Your task to perform on an android device: turn on the 12-hour format for clock Image 0: 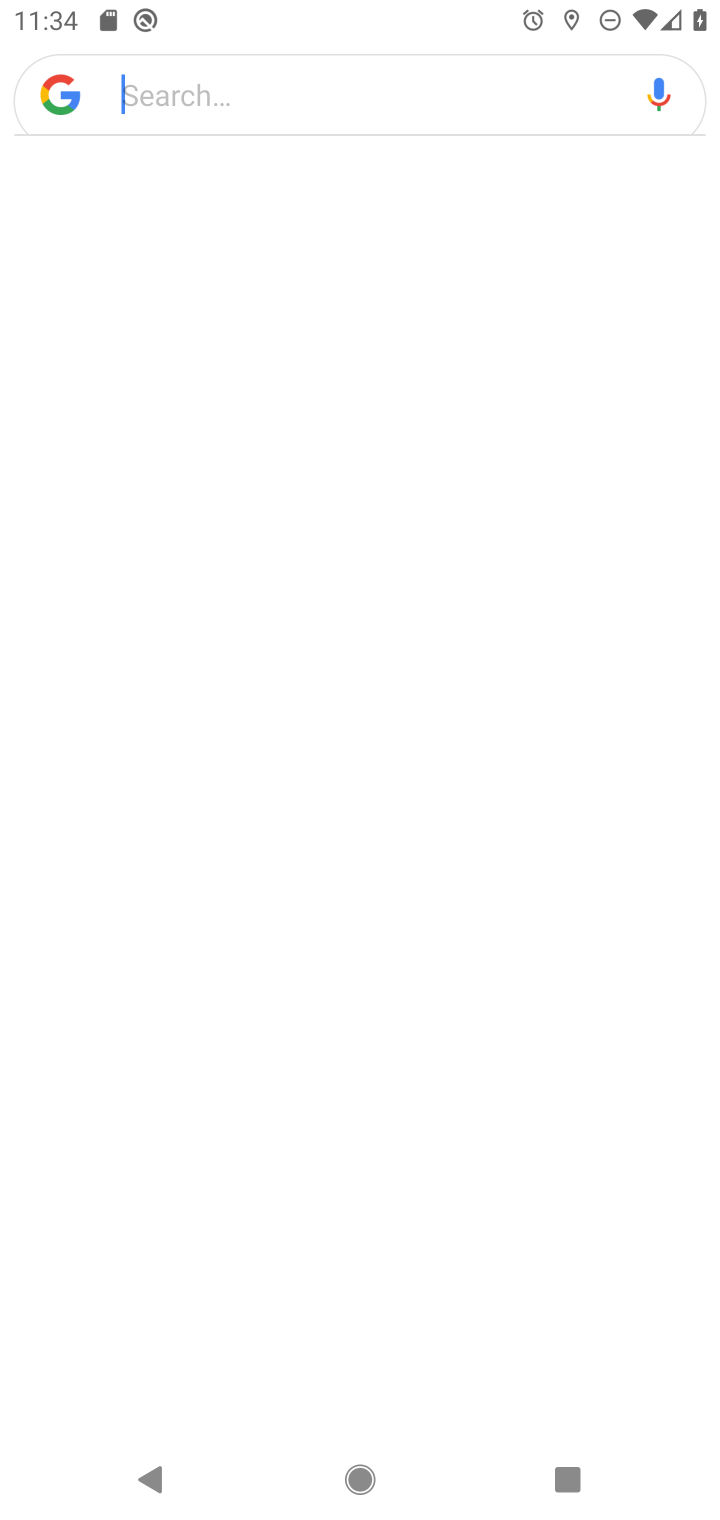
Step 0: press home button
Your task to perform on an android device: turn on the 12-hour format for clock Image 1: 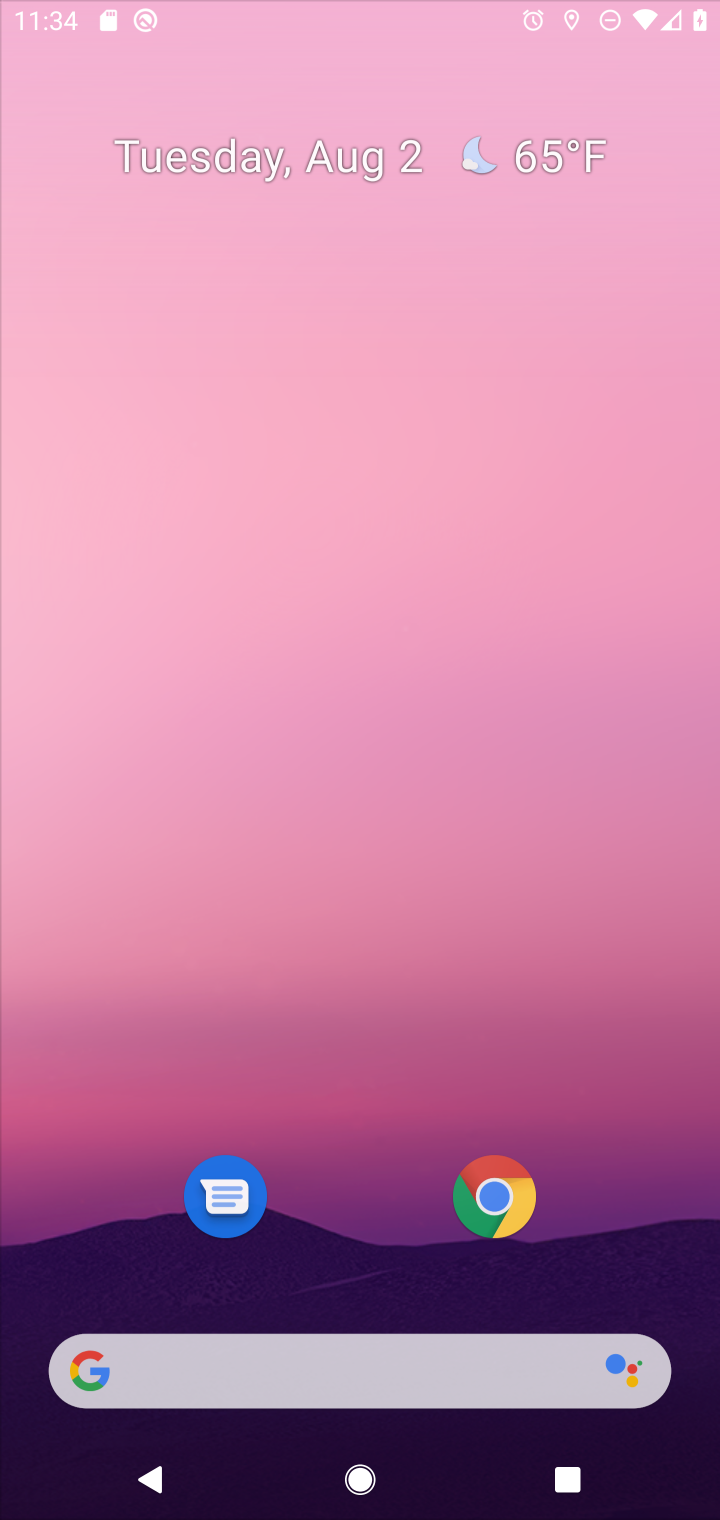
Step 1: press home button
Your task to perform on an android device: turn on the 12-hour format for clock Image 2: 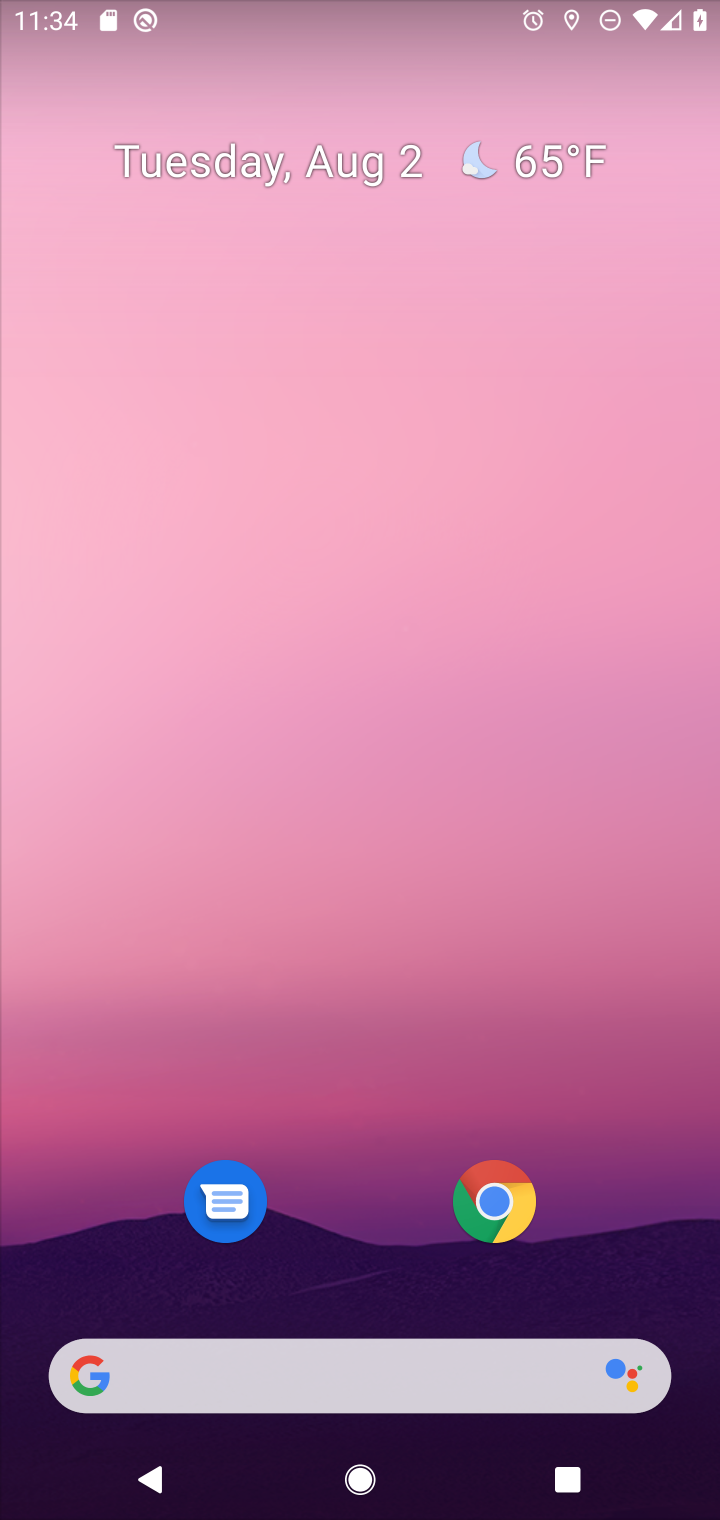
Step 2: drag from (415, 1278) to (707, 1482)
Your task to perform on an android device: turn on the 12-hour format for clock Image 3: 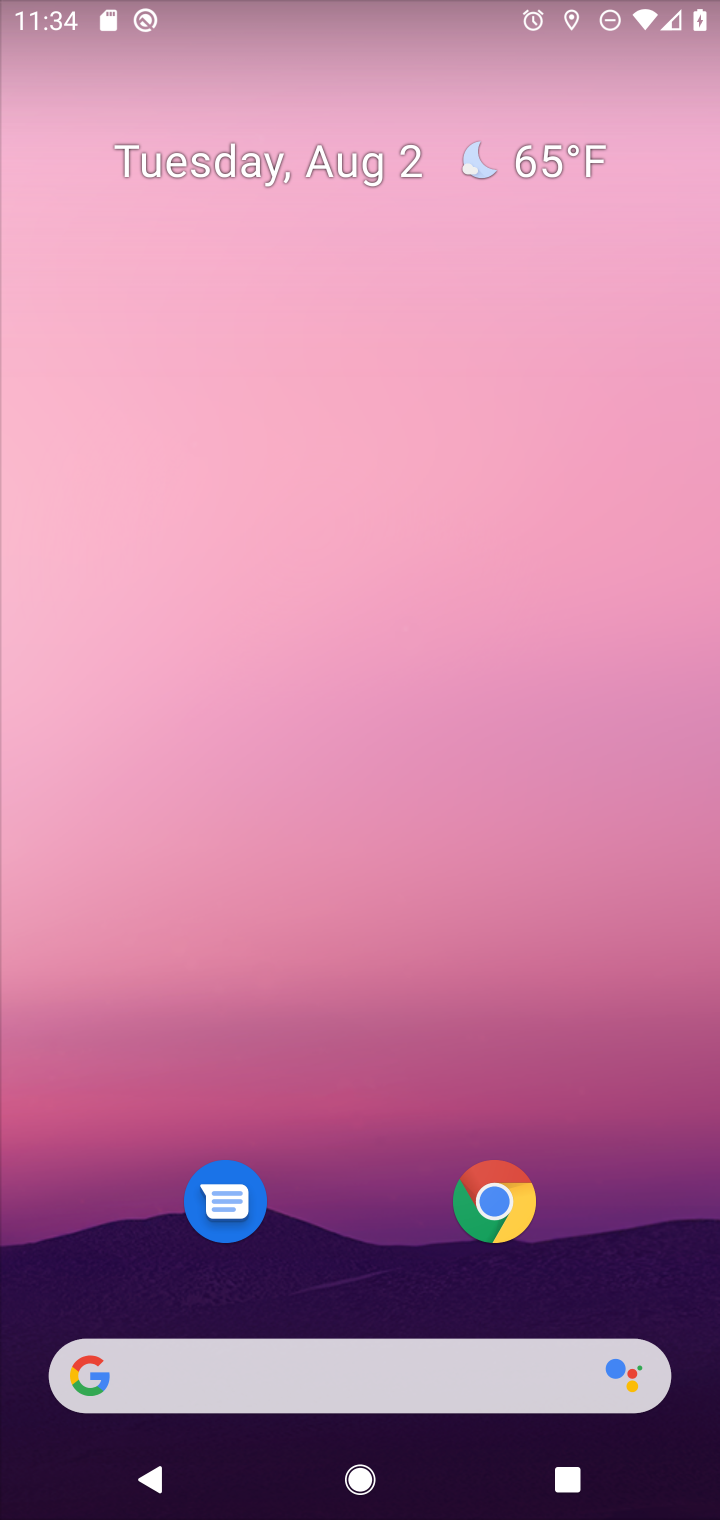
Step 3: drag from (370, 1347) to (369, 298)
Your task to perform on an android device: turn on the 12-hour format for clock Image 4: 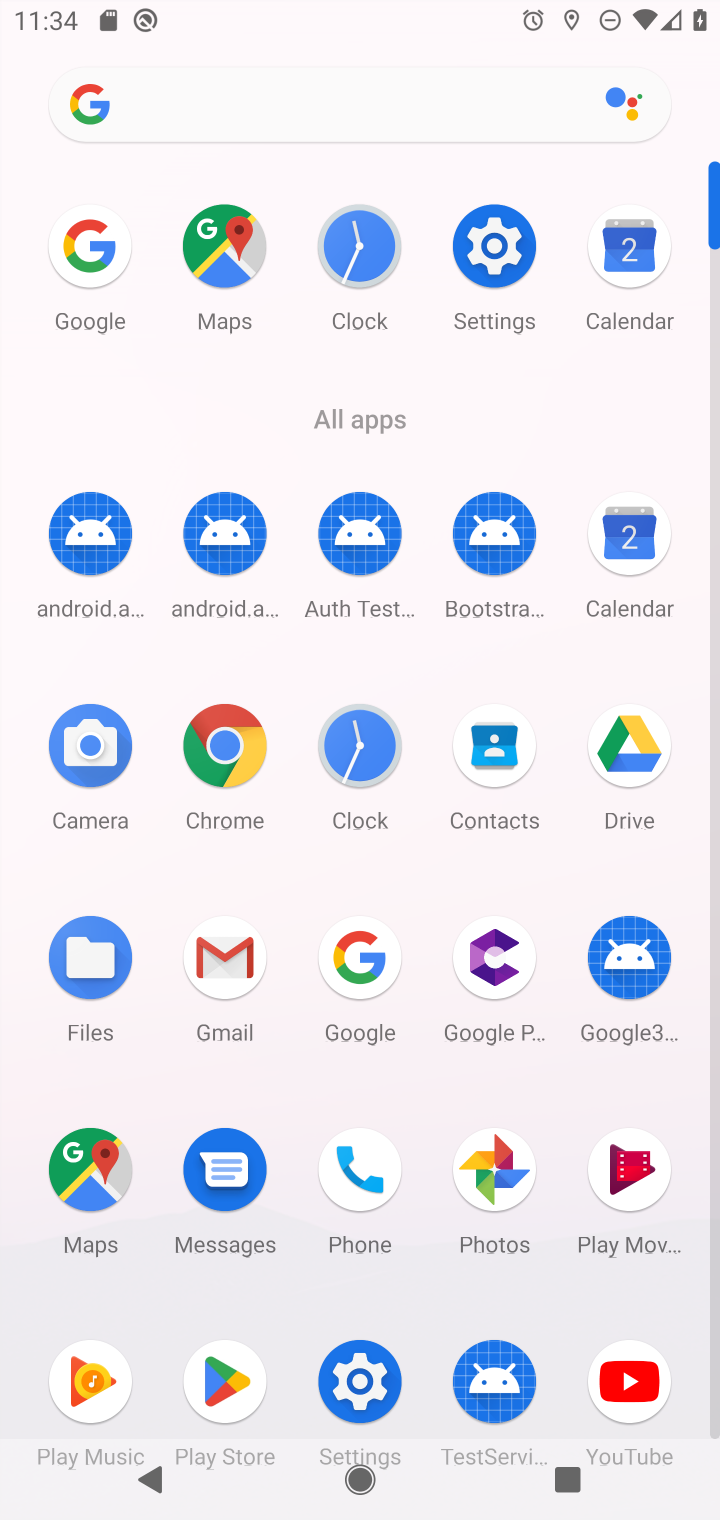
Step 4: click (370, 244)
Your task to perform on an android device: turn on the 12-hour format for clock Image 5: 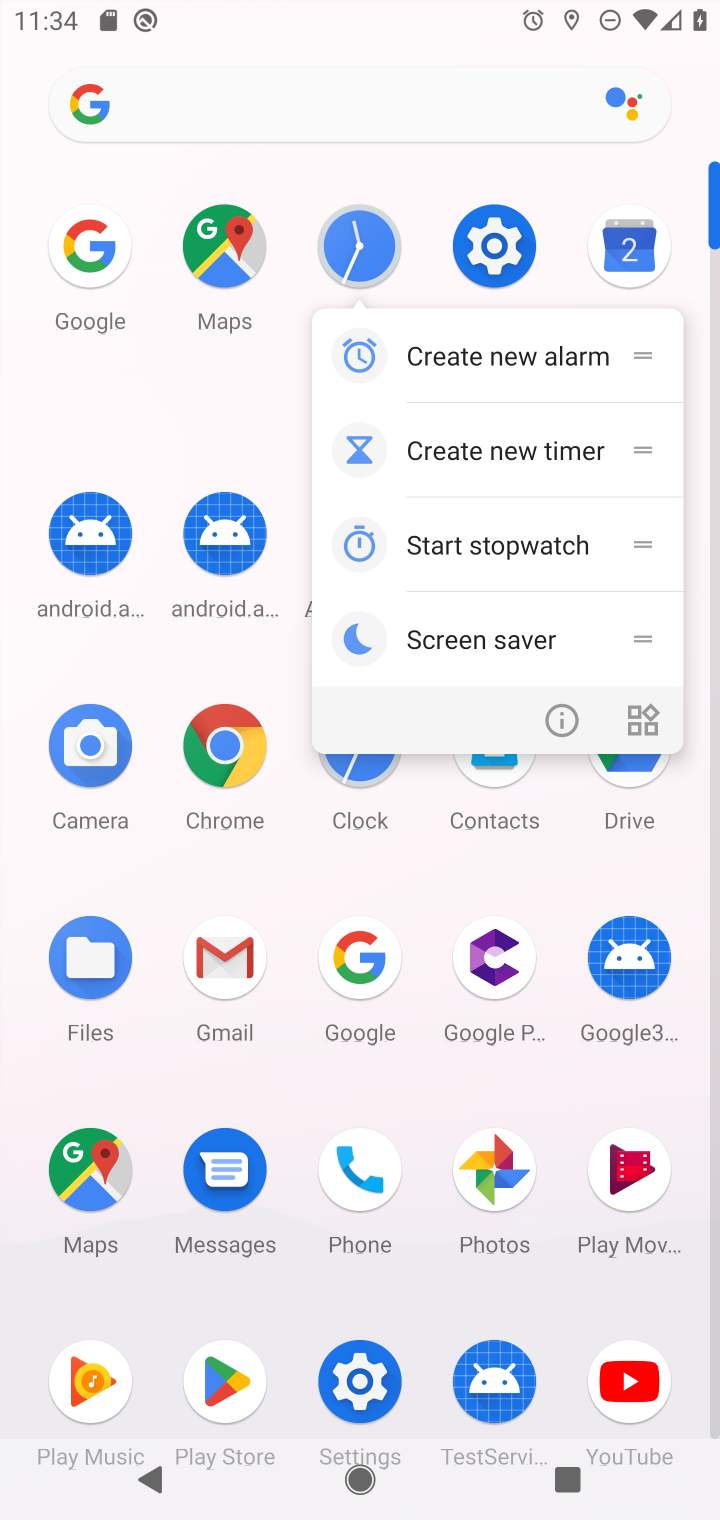
Step 5: click (370, 235)
Your task to perform on an android device: turn on the 12-hour format for clock Image 6: 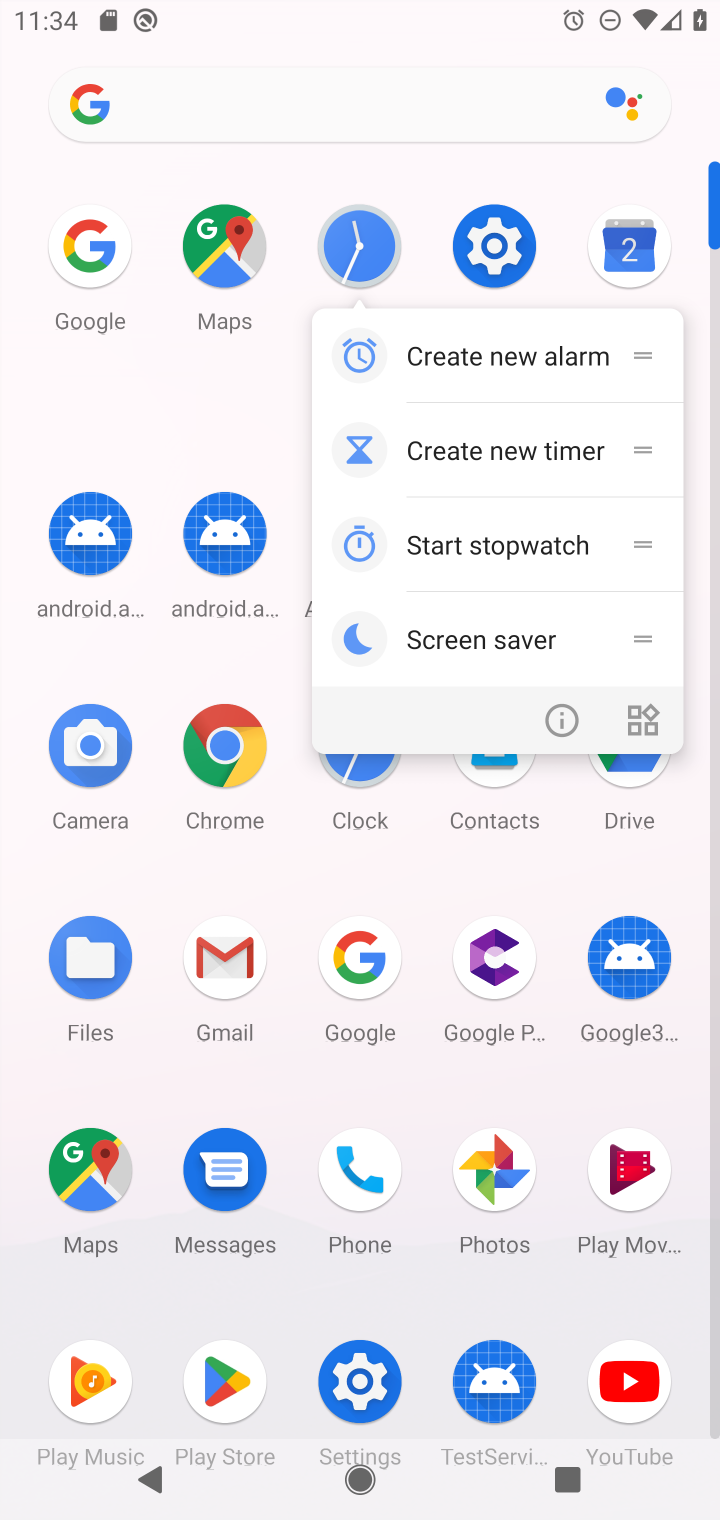
Step 6: click (365, 235)
Your task to perform on an android device: turn on the 12-hour format for clock Image 7: 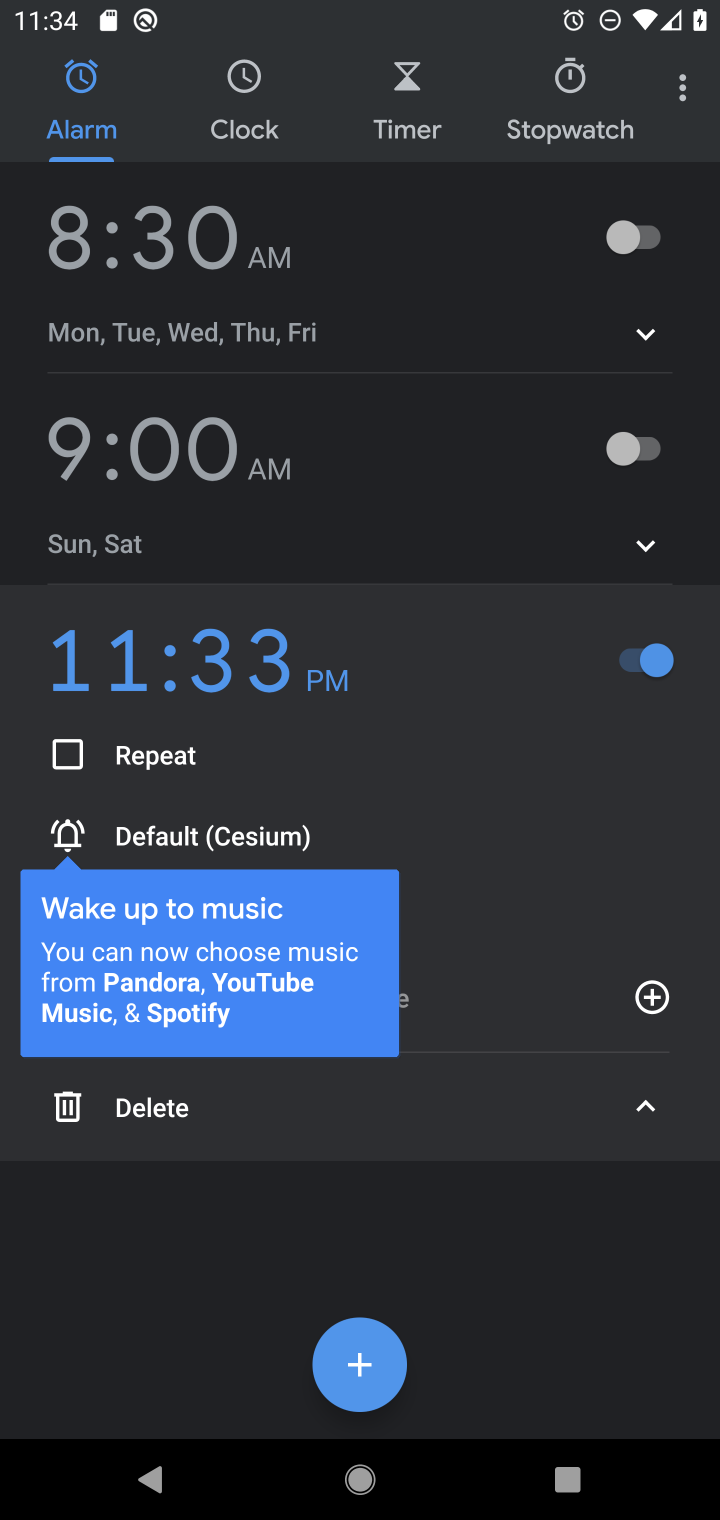
Step 7: click (682, 82)
Your task to perform on an android device: turn on the 12-hour format for clock Image 8: 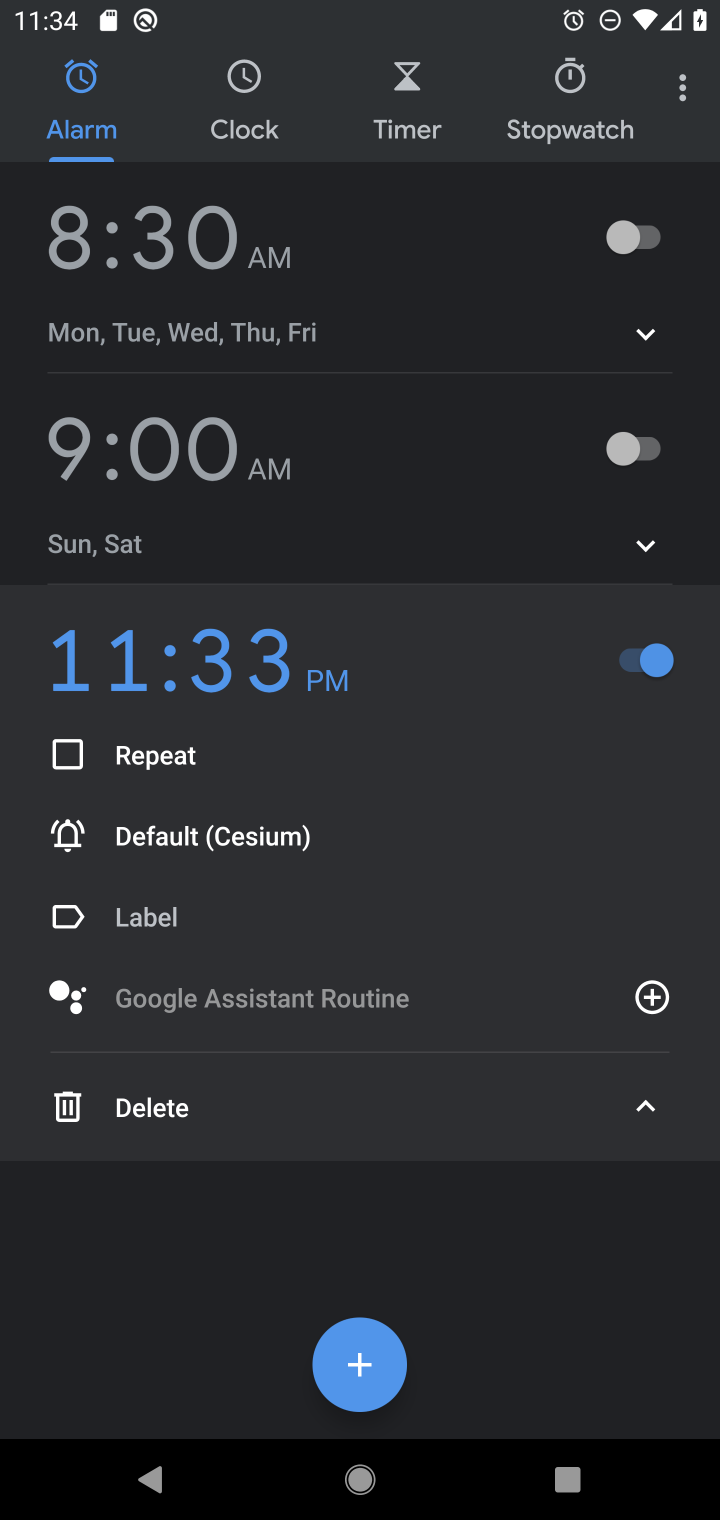
Step 8: click (678, 111)
Your task to perform on an android device: turn on the 12-hour format for clock Image 9: 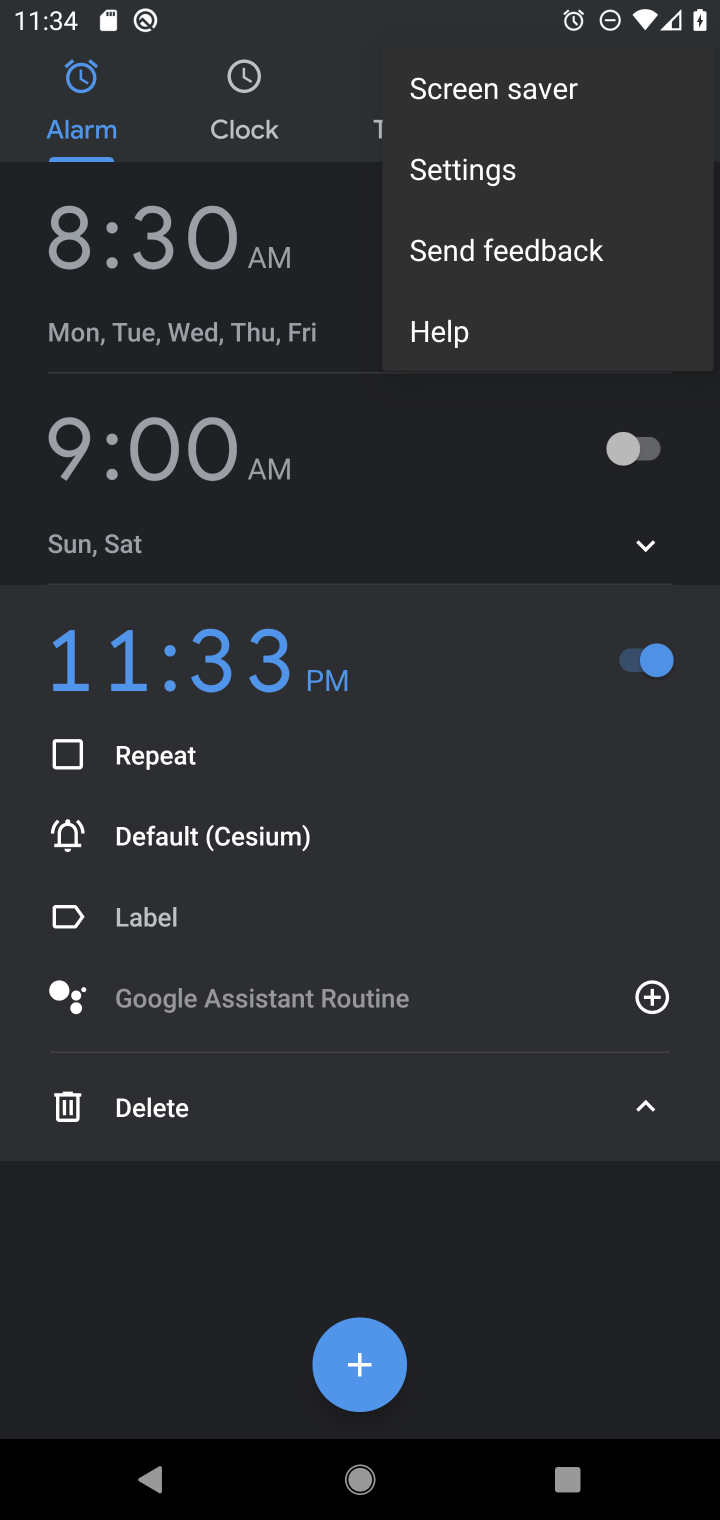
Step 9: click (461, 175)
Your task to perform on an android device: turn on the 12-hour format for clock Image 10: 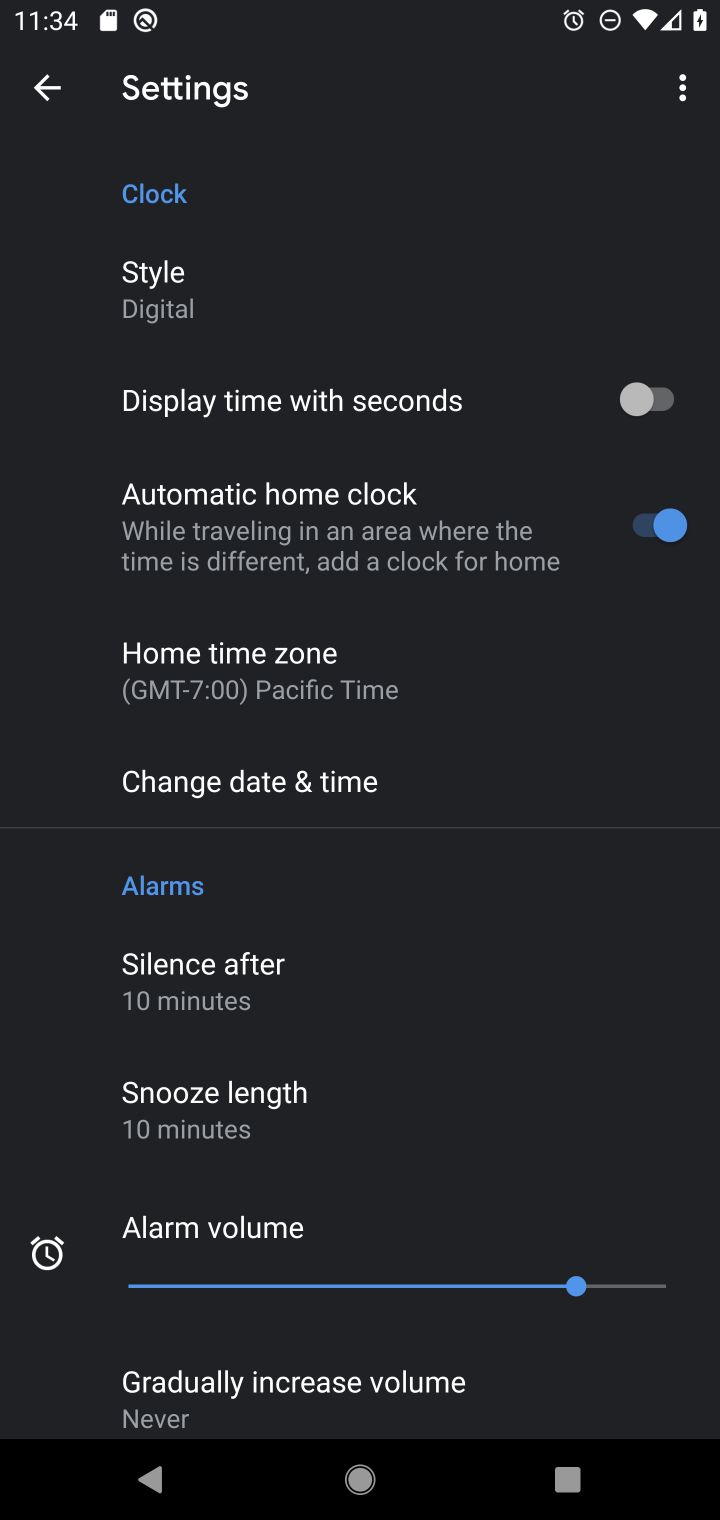
Step 10: click (226, 783)
Your task to perform on an android device: turn on the 12-hour format for clock Image 11: 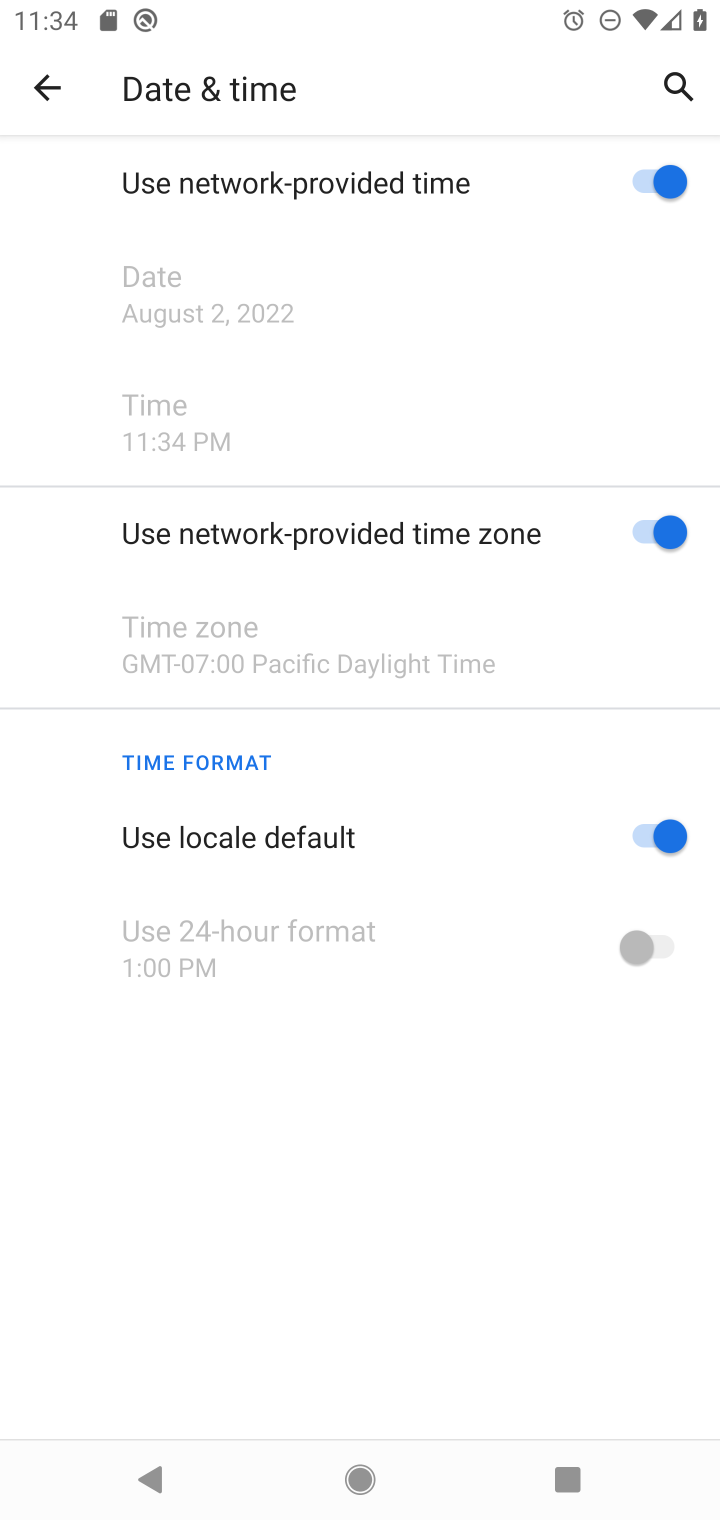
Step 11: task complete